Your task to perform on an android device: set an alarm Image 0: 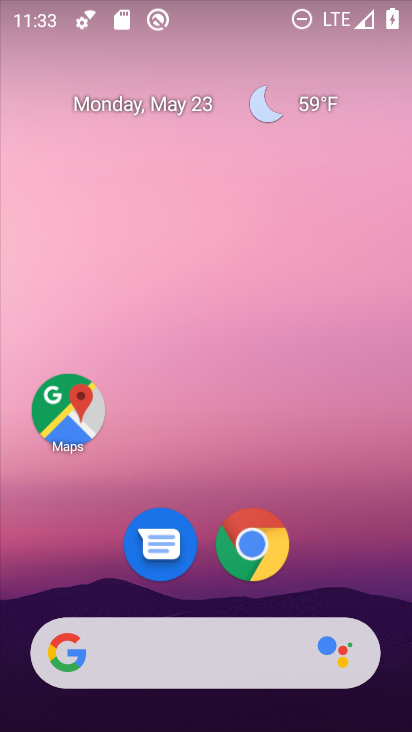
Step 0: drag from (391, 616) to (357, 237)
Your task to perform on an android device: set an alarm Image 1: 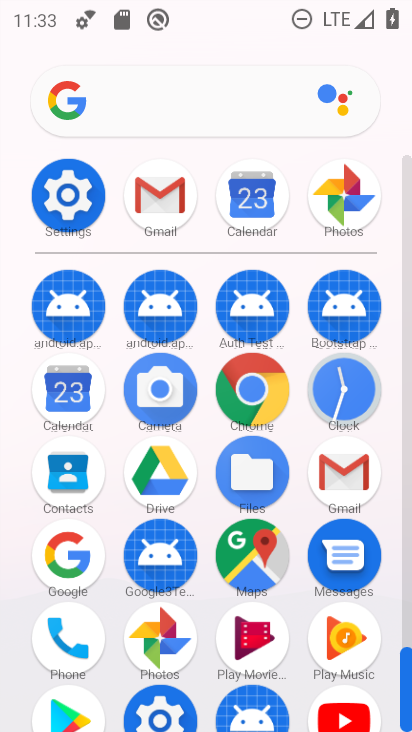
Step 1: click (345, 387)
Your task to perform on an android device: set an alarm Image 2: 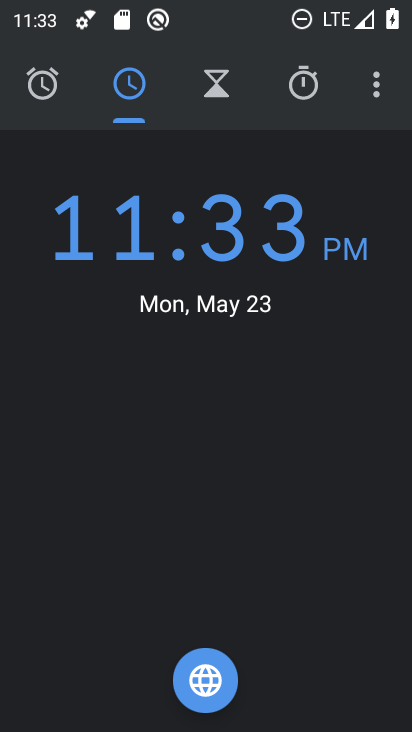
Step 2: click (37, 87)
Your task to perform on an android device: set an alarm Image 3: 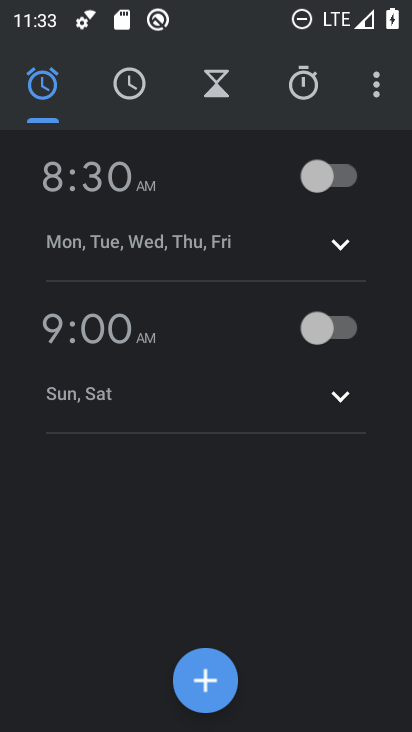
Step 3: click (61, 192)
Your task to perform on an android device: set an alarm Image 4: 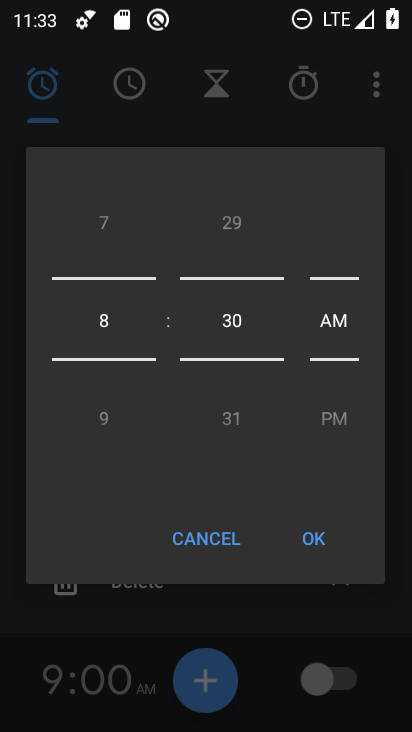
Step 4: drag from (110, 233) to (111, 431)
Your task to perform on an android device: set an alarm Image 5: 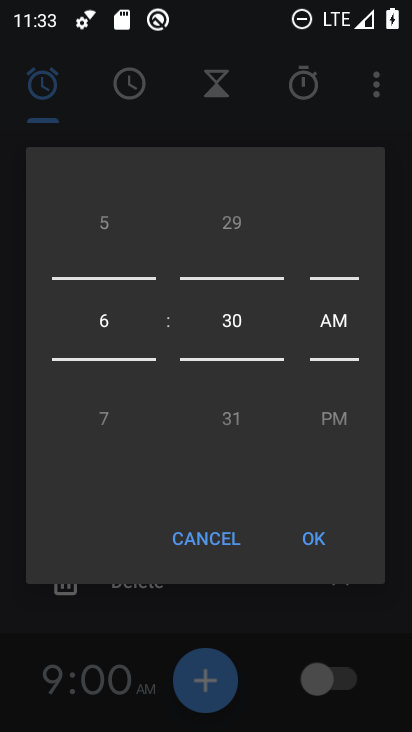
Step 5: click (317, 539)
Your task to perform on an android device: set an alarm Image 6: 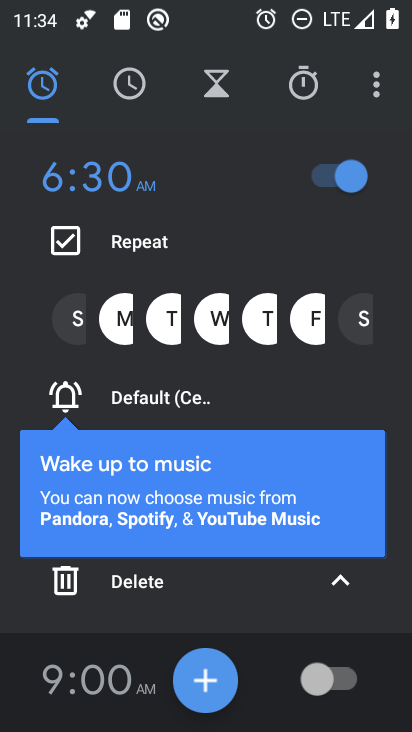
Step 6: click (359, 324)
Your task to perform on an android device: set an alarm Image 7: 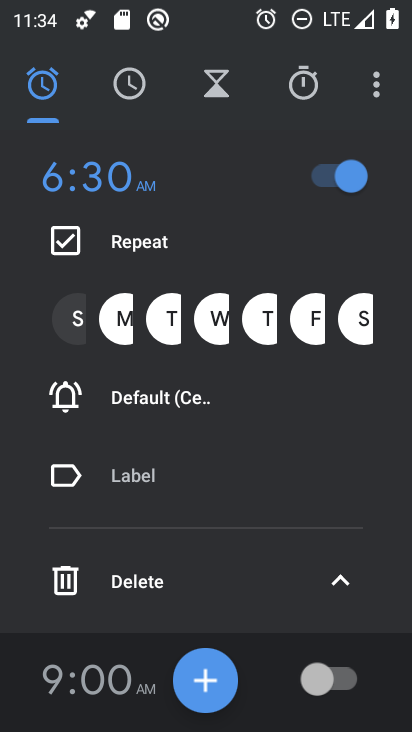
Step 7: click (339, 580)
Your task to perform on an android device: set an alarm Image 8: 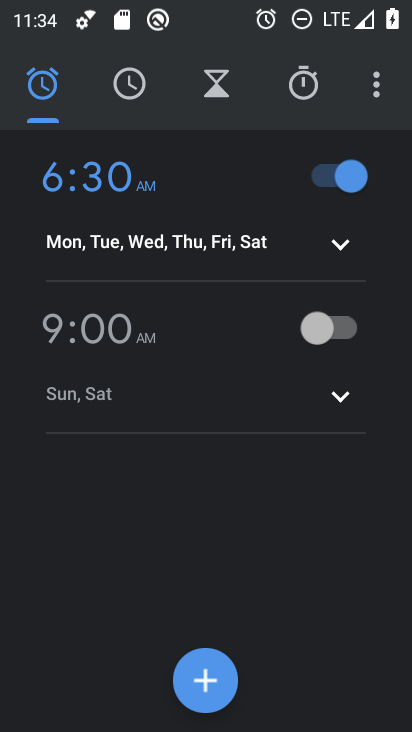
Step 8: task complete